Your task to perform on an android device: change alarm snooze length Image 0: 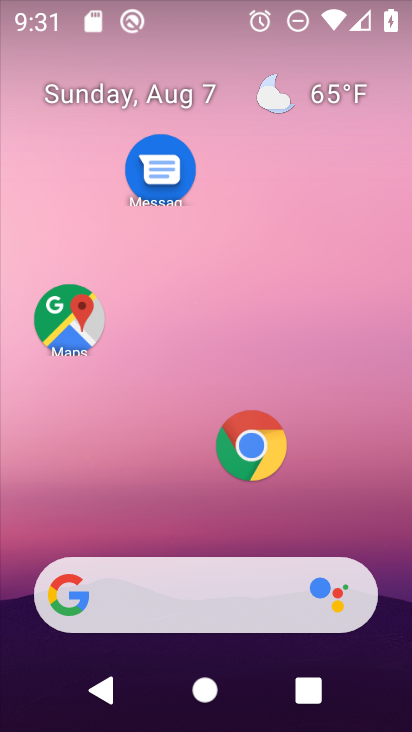
Step 0: press home button
Your task to perform on an android device: change alarm snooze length Image 1: 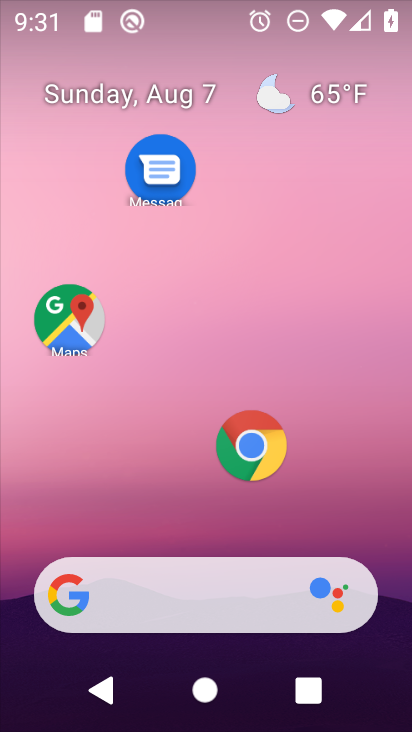
Step 1: drag from (203, 444) to (228, 123)
Your task to perform on an android device: change alarm snooze length Image 2: 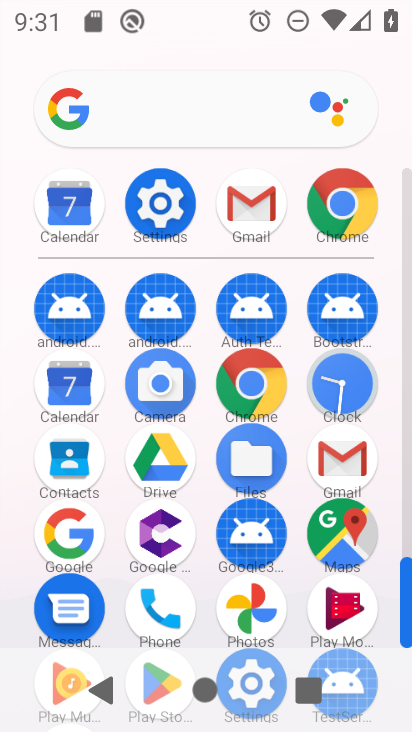
Step 2: click (340, 379)
Your task to perform on an android device: change alarm snooze length Image 3: 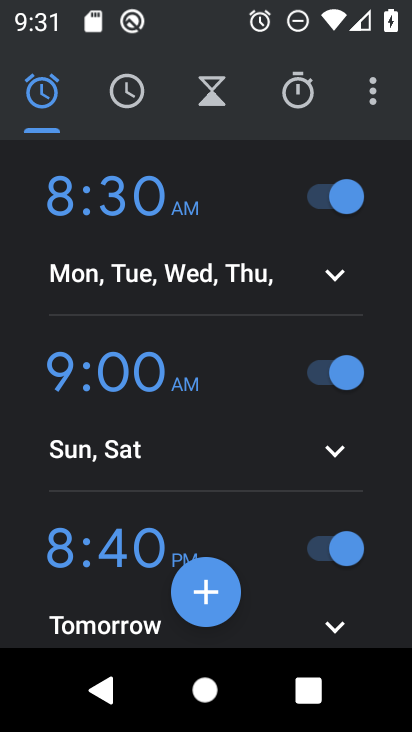
Step 3: click (369, 90)
Your task to perform on an android device: change alarm snooze length Image 4: 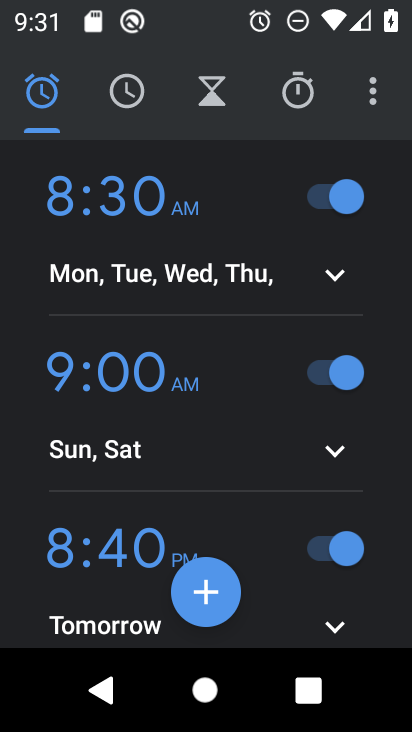
Step 4: click (375, 93)
Your task to perform on an android device: change alarm snooze length Image 5: 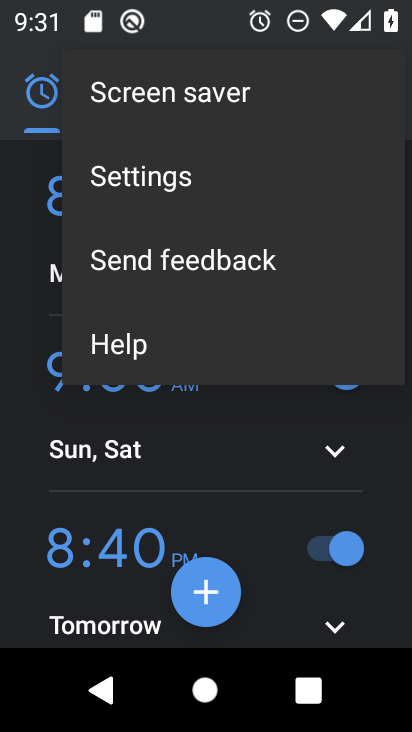
Step 5: click (205, 179)
Your task to perform on an android device: change alarm snooze length Image 6: 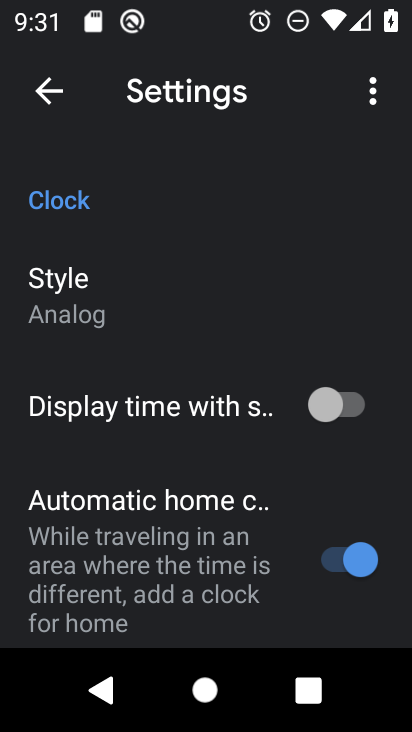
Step 6: drag from (227, 622) to (217, 260)
Your task to perform on an android device: change alarm snooze length Image 7: 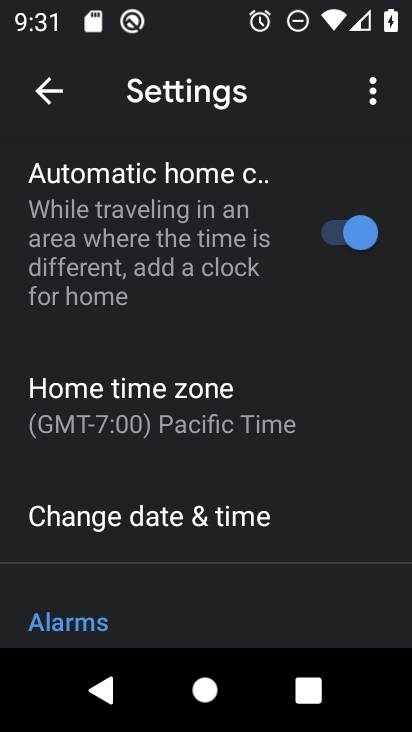
Step 7: drag from (206, 580) to (191, 290)
Your task to perform on an android device: change alarm snooze length Image 8: 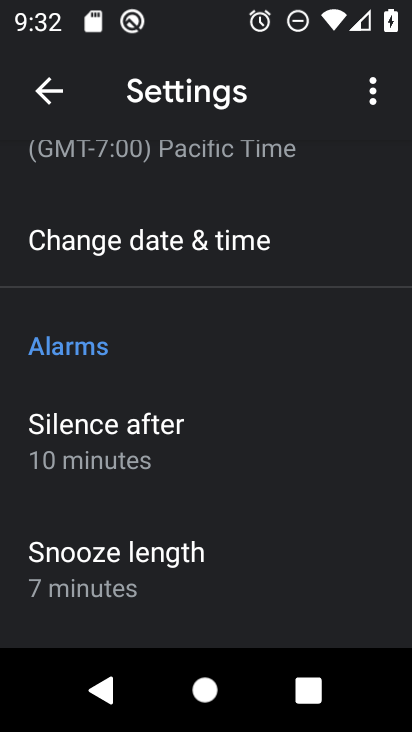
Step 8: click (219, 571)
Your task to perform on an android device: change alarm snooze length Image 9: 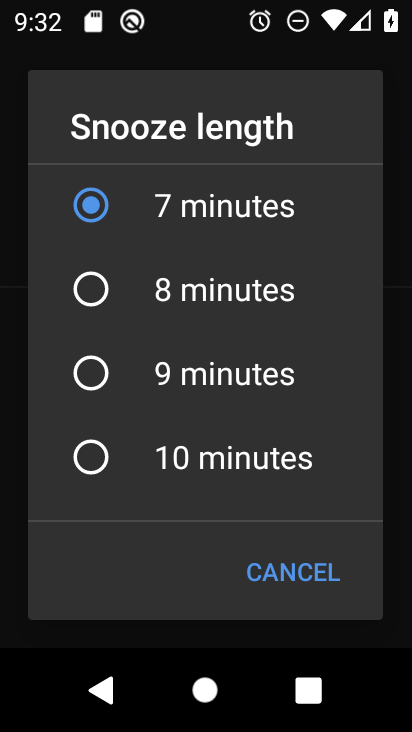
Step 9: click (96, 455)
Your task to perform on an android device: change alarm snooze length Image 10: 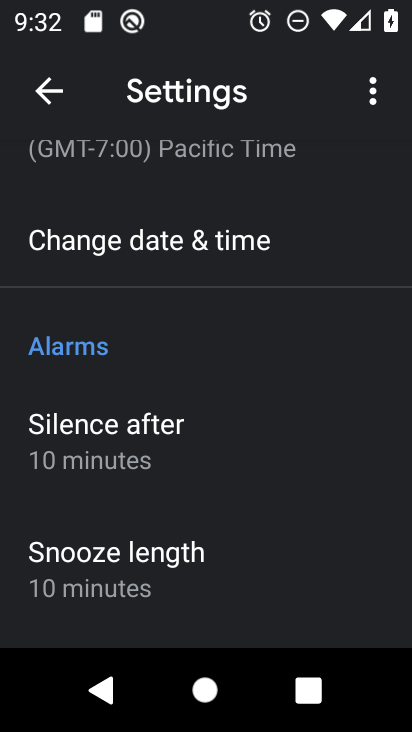
Step 10: task complete